Your task to perform on an android device: Go to Wikipedia Image 0: 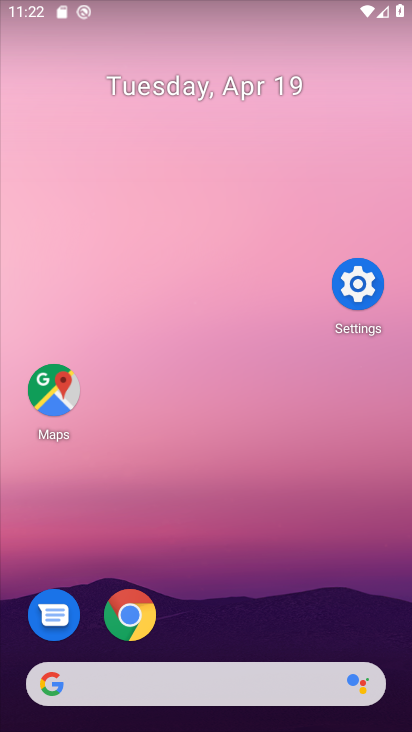
Step 0: drag from (200, 642) to (280, 123)
Your task to perform on an android device: Go to Wikipedia Image 1: 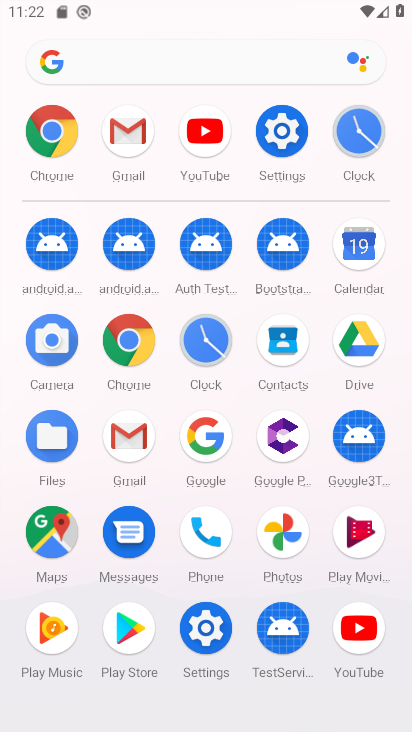
Step 1: click (124, 342)
Your task to perform on an android device: Go to Wikipedia Image 2: 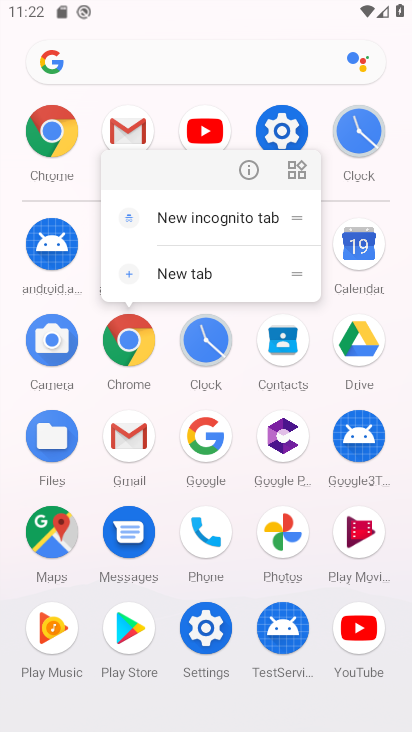
Step 2: click (246, 159)
Your task to perform on an android device: Go to Wikipedia Image 3: 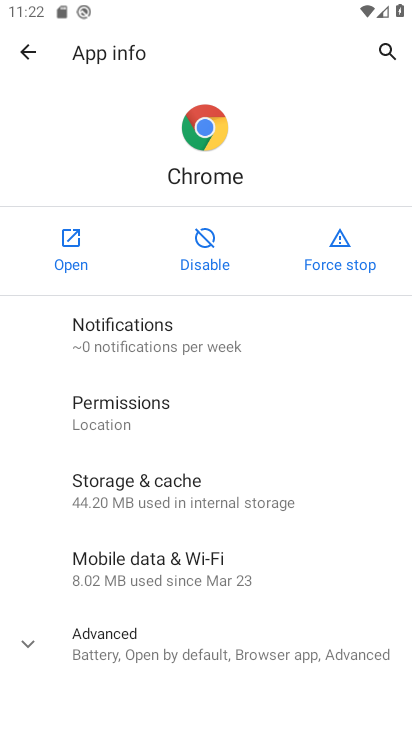
Step 3: click (72, 251)
Your task to perform on an android device: Go to Wikipedia Image 4: 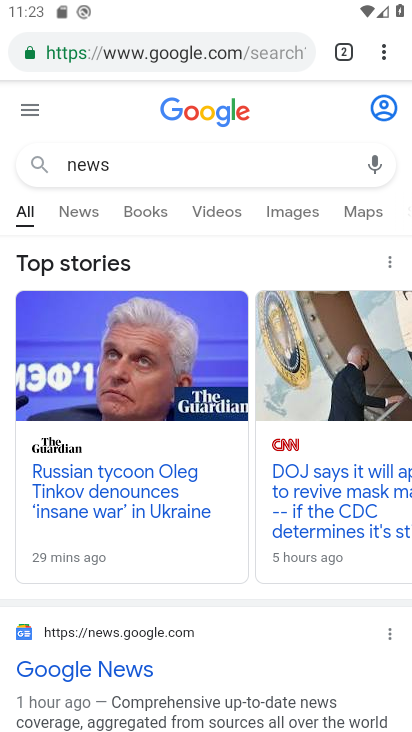
Step 4: click (243, 291)
Your task to perform on an android device: Go to Wikipedia Image 5: 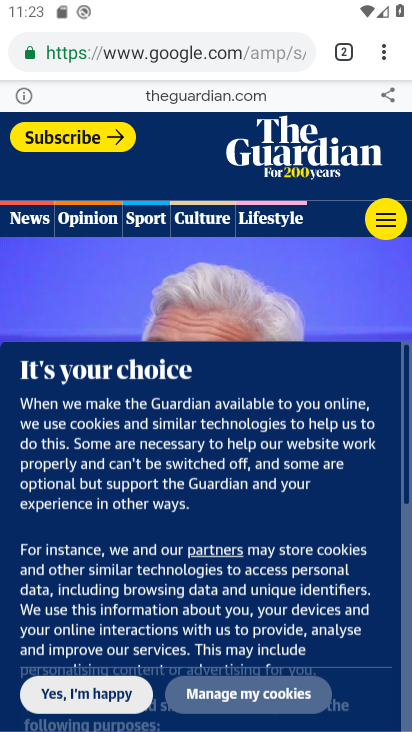
Step 5: click (210, 61)
Your task to perform on an android device: Go to Wikipedia Image 6: 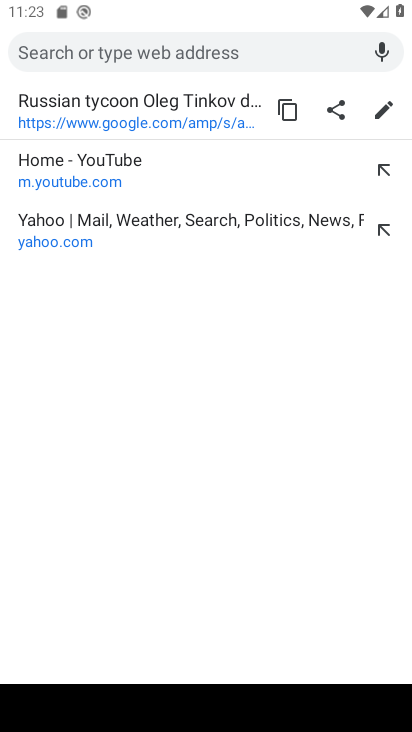
Step 6: type "wikipedia"
Your task to perform on an android device: Go to Wikipedia Image 7: 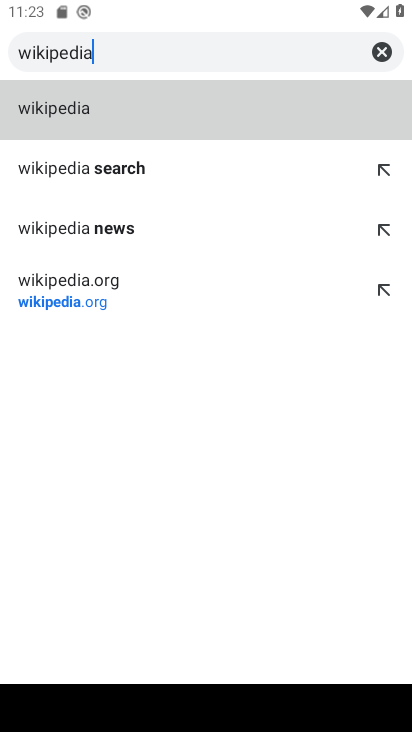
Step 7: click (72, 102)
Your task to perform on an android device: Go to Wikipedia Image 8: 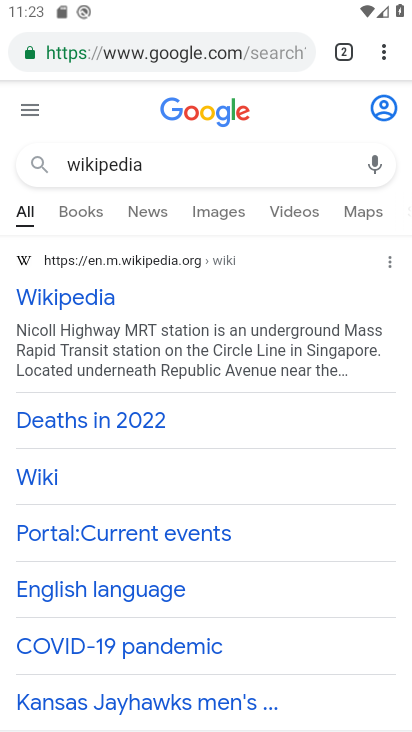
Step 8: click (74, 294)
Your task to perform on an android device: Go to Wikipedia Image 9: 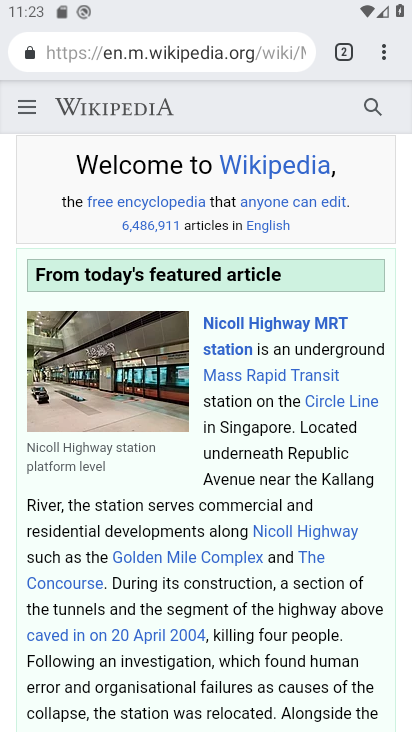
Step 9: task complete